Your task to perform on an android device: Search for rayovac triple a on bestbuy.com, select the first entry, add it to the cart, then select checkout. Image 0: 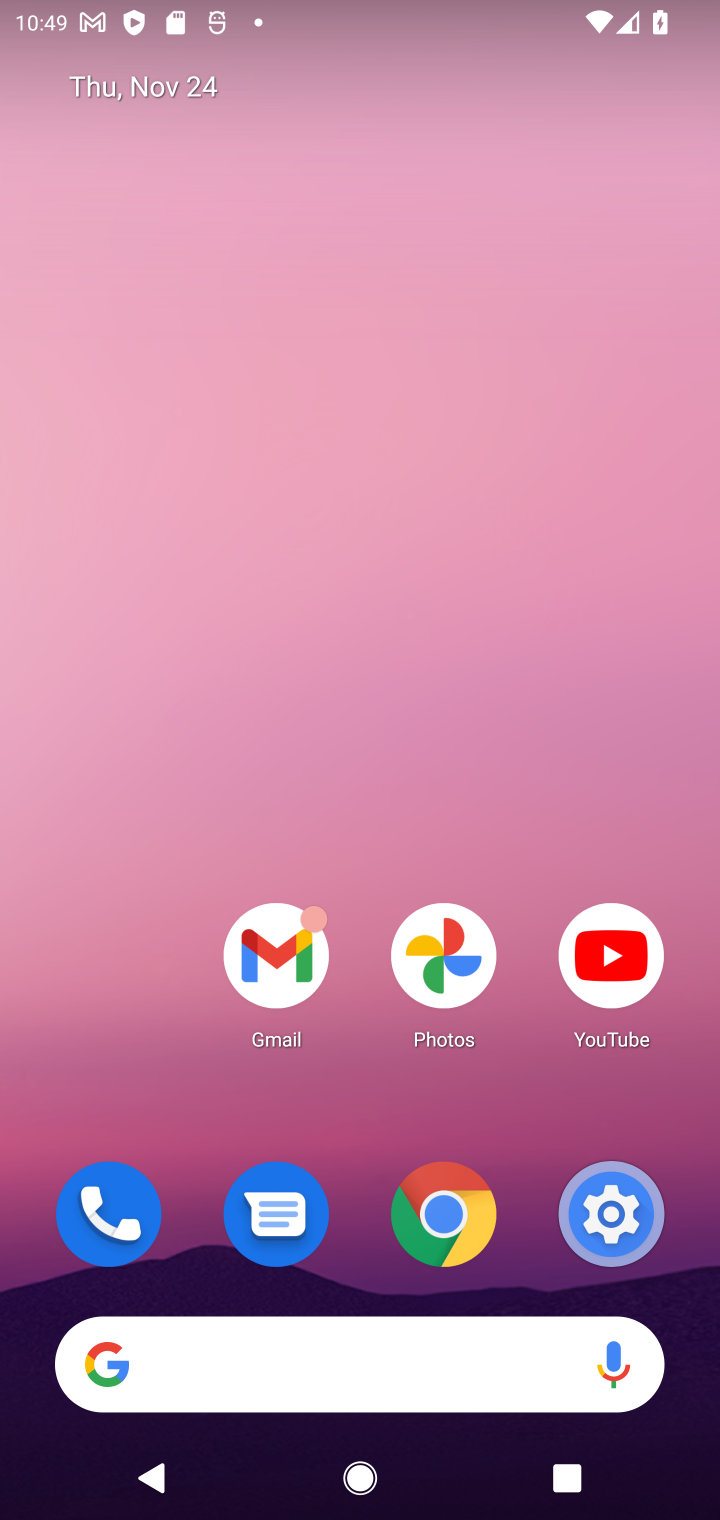
Step 0: click (422, 1338)
Your task to perform on an android device: Search for rayovac triple a on bestbuy.com, select the first entry, add it to the cart, then select checkout. Image 1: 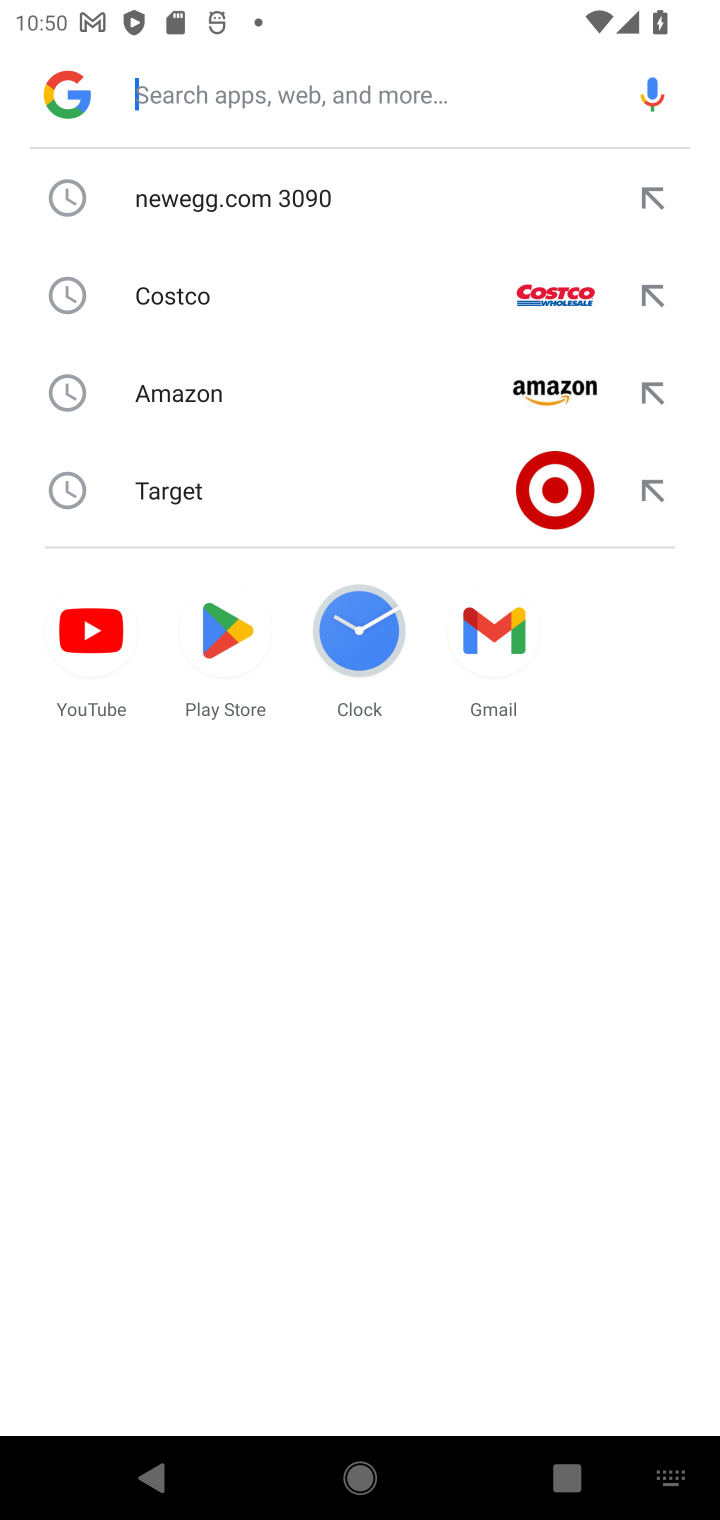
Step 1: type "bestbuy"
Your task to perform on an android device: Search for rayovac triple a on bestbuy.com, select the first entry, add it to the cart, then select checkout. Image 2: 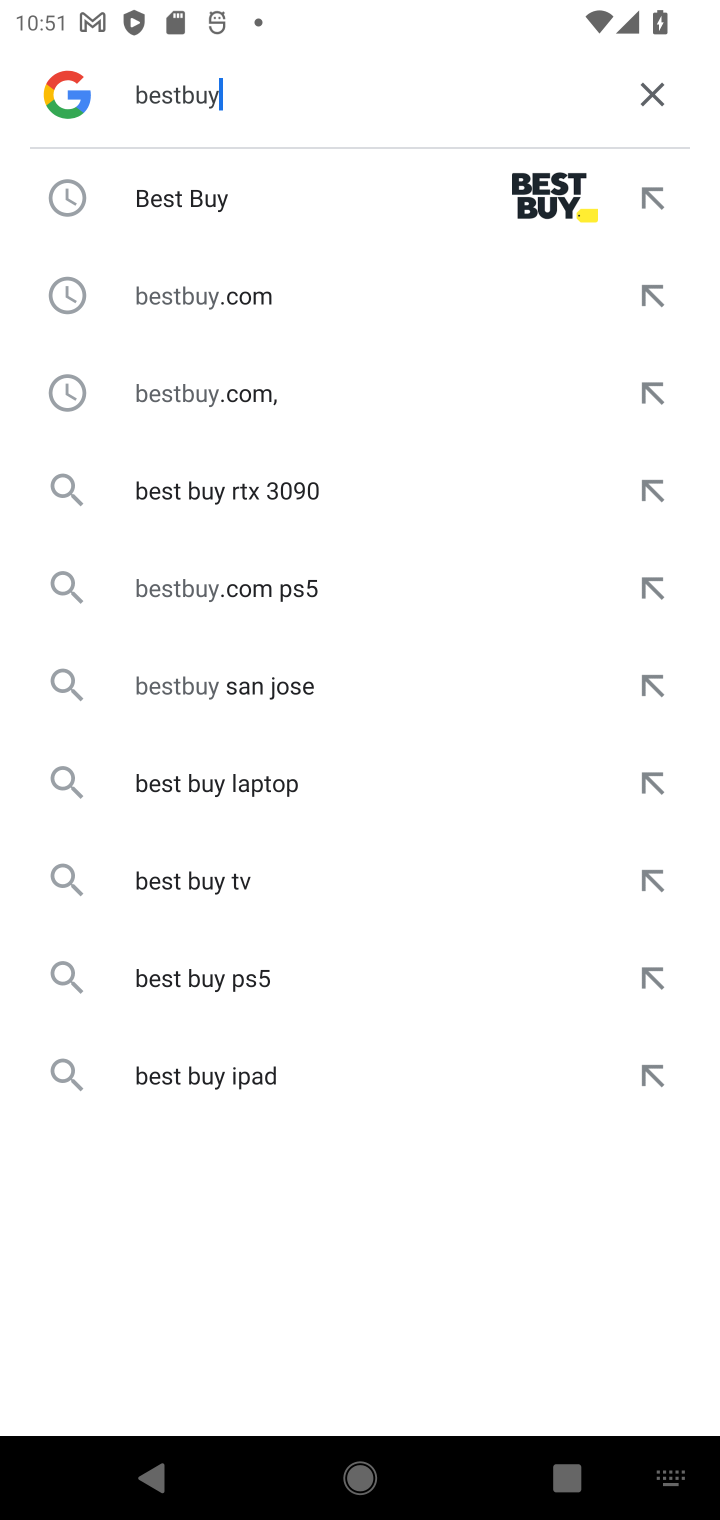
Step 2: click (503, 168)
Your task to perform on an android device: Search for rayovac triple a on bestbuy.com, select the first entry, add it to the cart, then select checkout. Image 3: 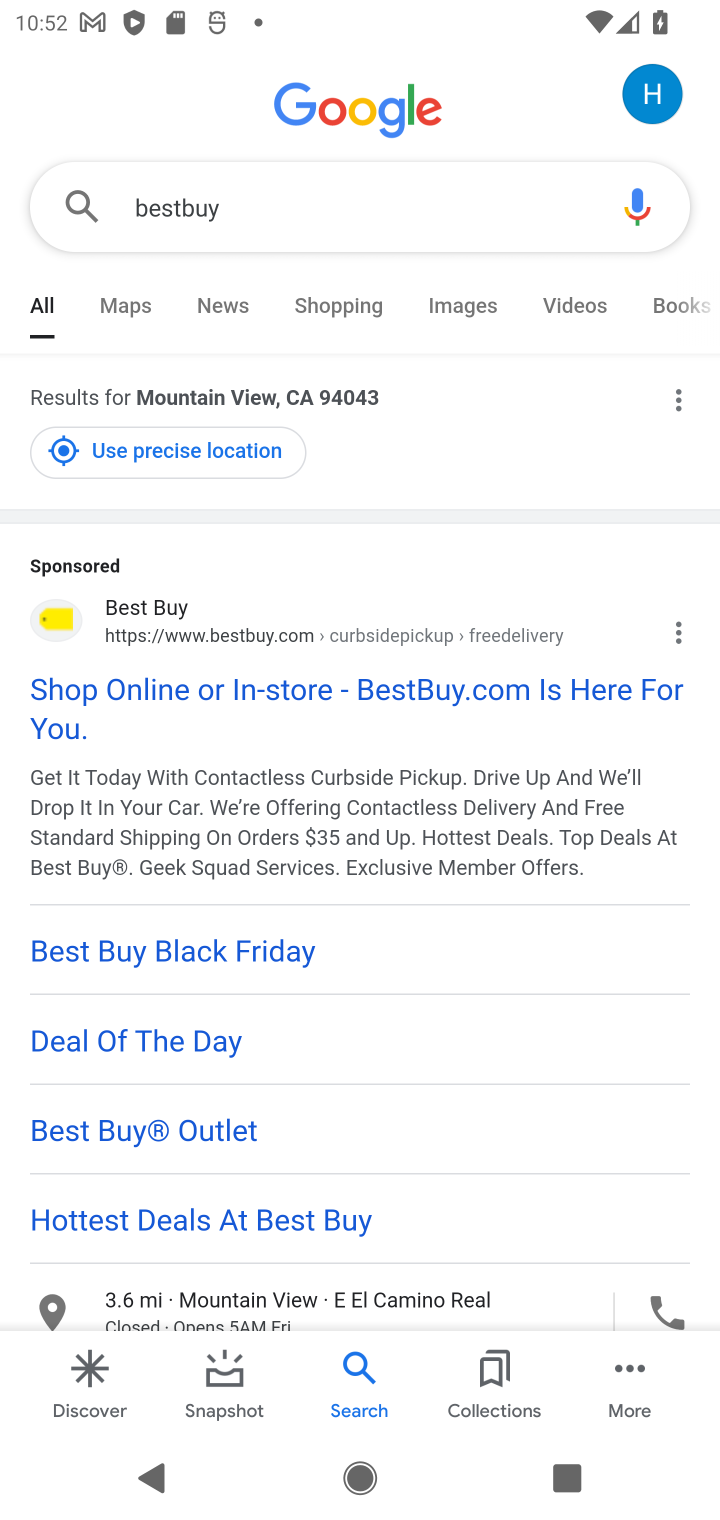
Step 3: click (121, 733)
Your task to perform on an android device: Search for rayovac triple a on bestbuy.com, select the first entry, add it to the cart, then select checkout. Image 4: 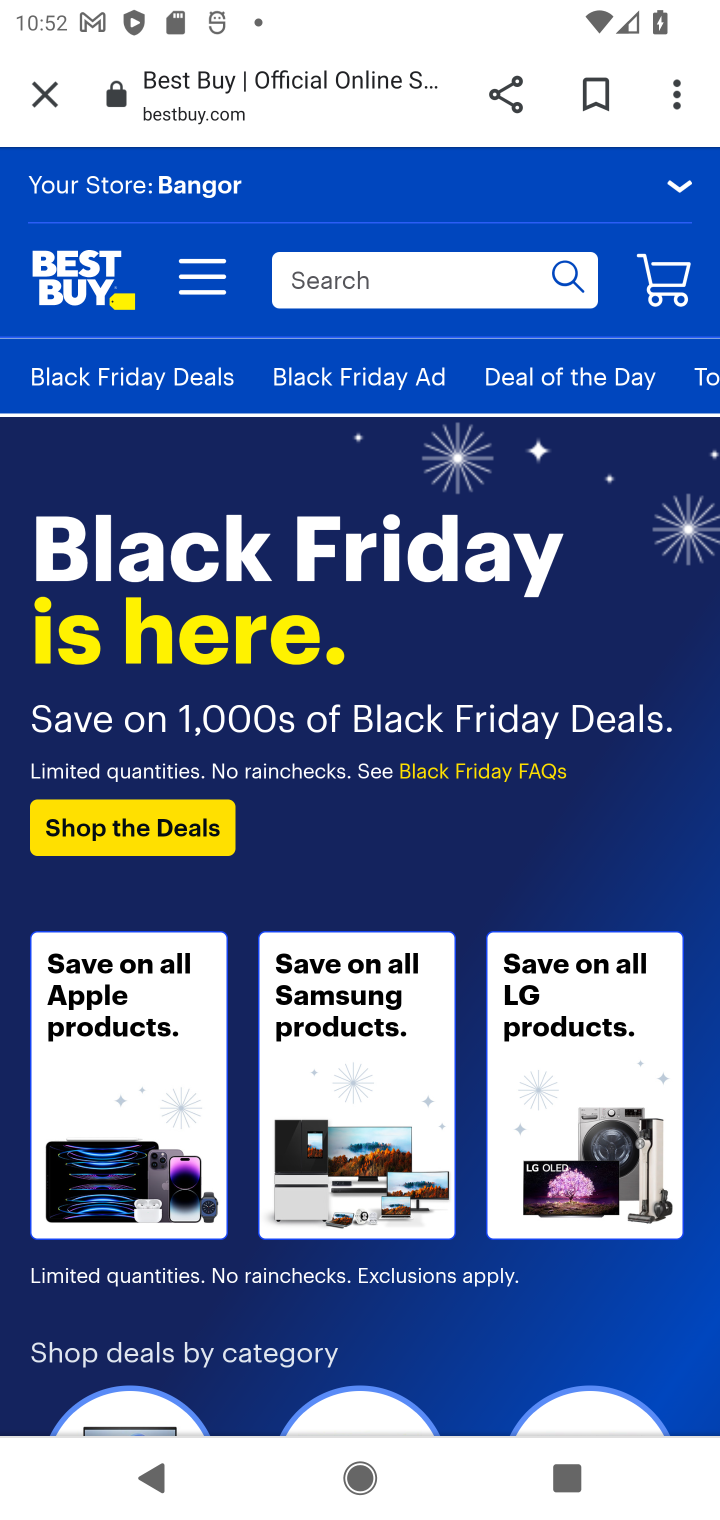
Step 4: task complete